Your task to perform on an android device: Open CNN.com Image 0: 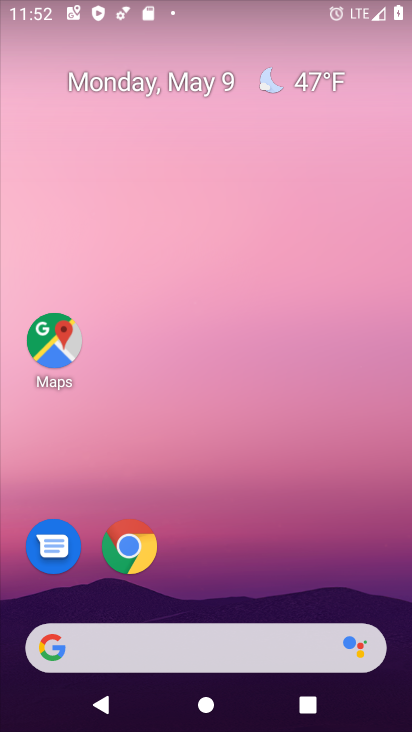
Step 0: click (139, 551)
Your task to perform on an android device: Open CNN.com Image 1: 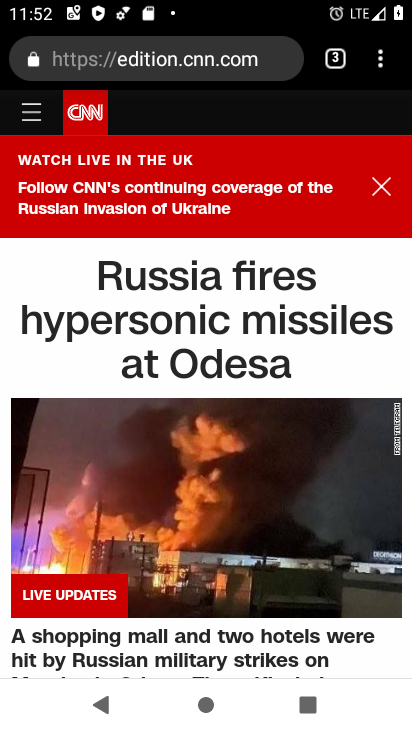
Step 1: task complete